Your task to perform on an android device: Open the Play Movies app and select the watchlist tab. Image 0: 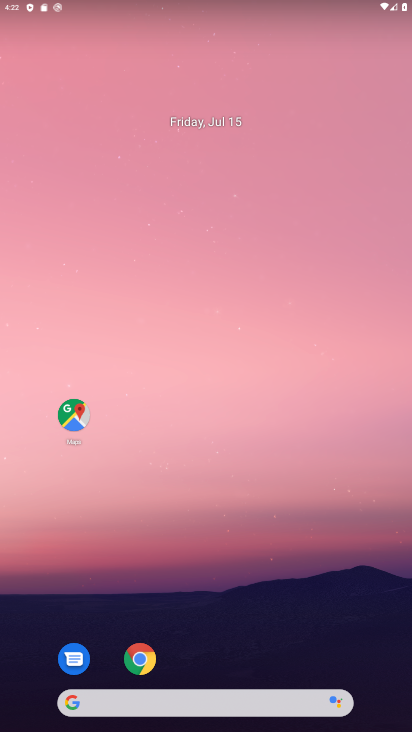
Step 0: drag from (195, 670) to (131, 94)
Your task to perform on an android device: Open the Play Movies app and select the watchlist tab. Image 1: 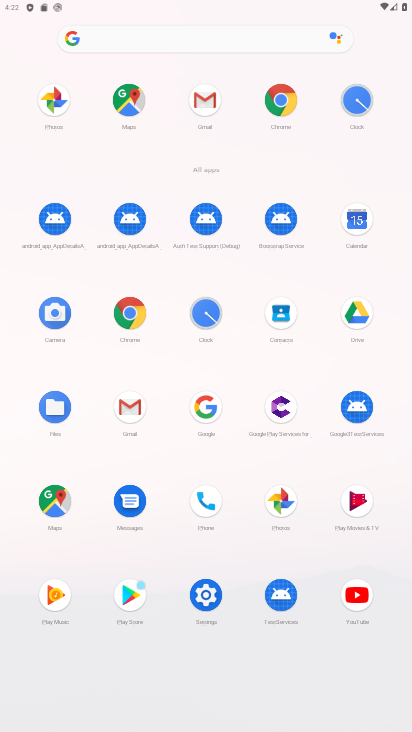
Step 1: click (347, 505)
Your task to perform on an android device: Open the Play Movies app and select the watchlist tab. Image 2: 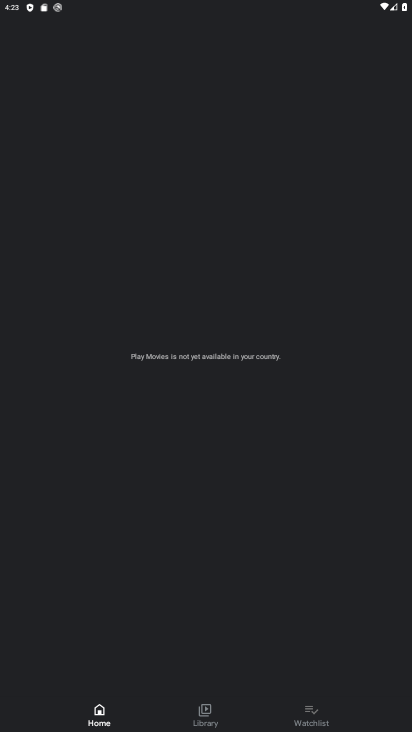
Step 2: click (311, 700)
Your task to perform on an android device: Open the Play Movies app and select the watchlist tab. Image 3: 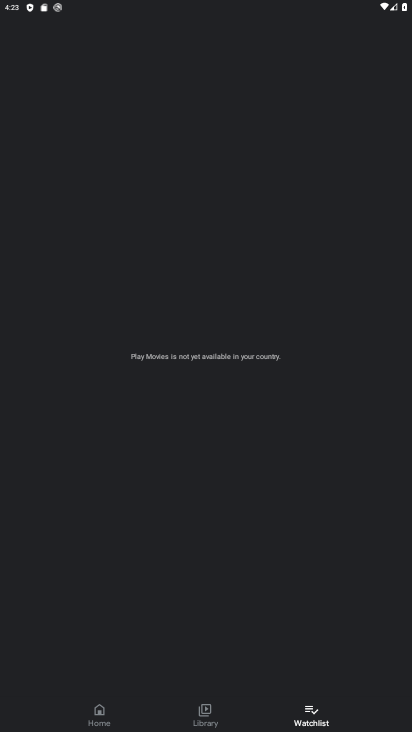
Step 3: task complete